Your task to perform on an android device: open a bookmark in the chrome app Image 0: 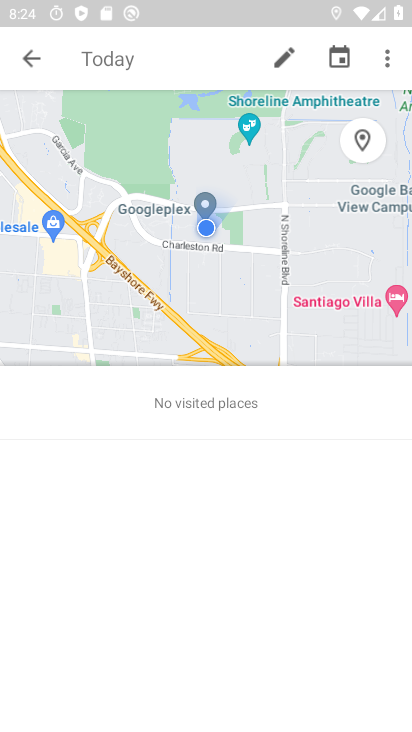
Step 0: press back button
Your task to perform on an android device: open a bookmark in the chrome app Image 1: 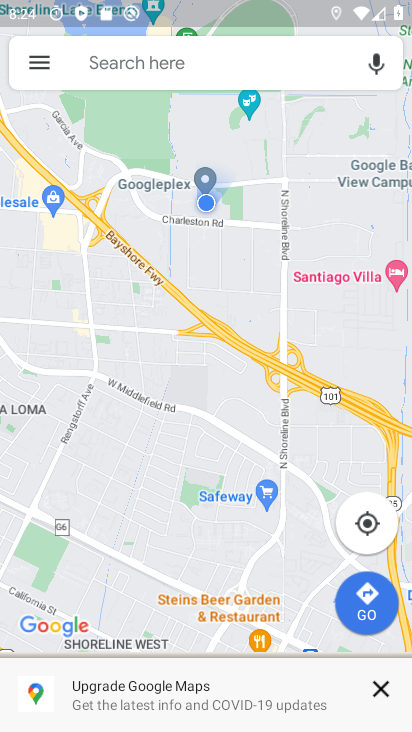
Step 1: press home button
Your task to perform on an android device: open a bookmark in the chrome app Image 2: 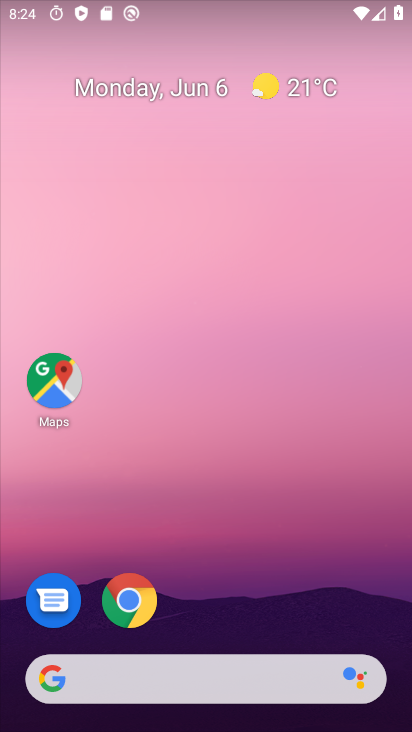
Step 2: drag from (238, 593) to (233, 33)
Your task to perform on an android device: open a bookmark in the chrome app Image 3: 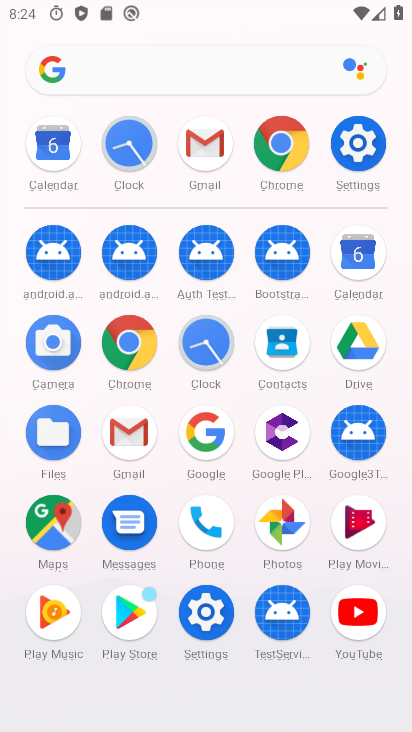
Step 3: click (283, 132)
Your task to perform on an android device: open a bookmark in the chrome app Image 4: 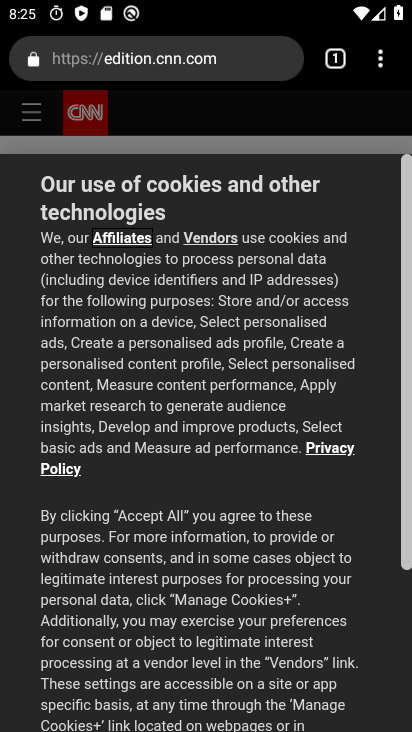
Step 4: drag from (377, 61) to (197, 225)
Your task to perform on an android device: open a bookmark in the chrome app Image 5: 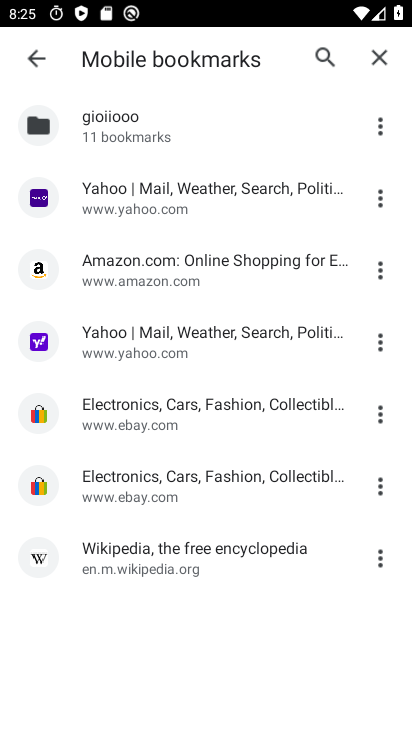
Step 5: click (170, 281)
Your task to perform on an android device: open a bookmark in the chrome app Image 6: 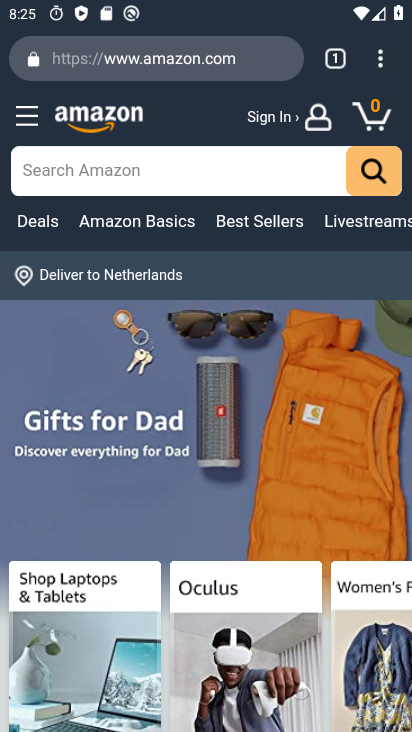
Step 6: drag from (381, 60) to (209, 626)
Your task to perform on an android device: open a bookmark in the chrome app Image 7: 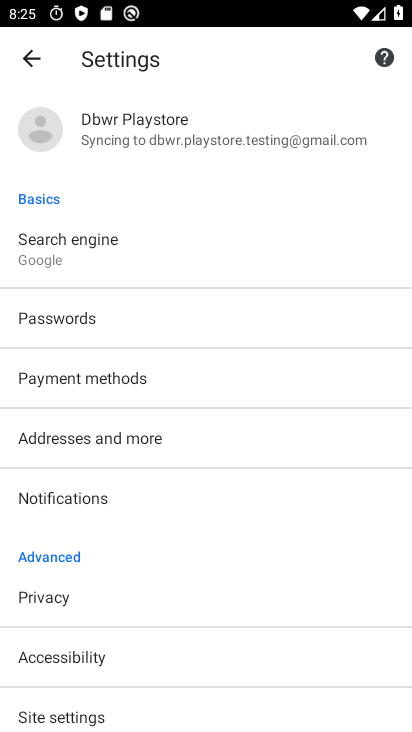
Step 7: click (31, 54)
Your task to perform on an android device: open a bookmark in the chrome app Image 8: 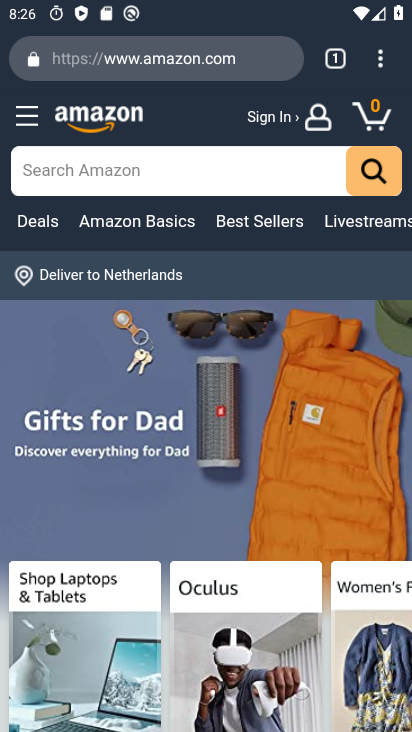
Step 8: drag from (384, 64) to (198, 221)
Your task to perform on an android device: open a bookmark in the chrome app Image 9: 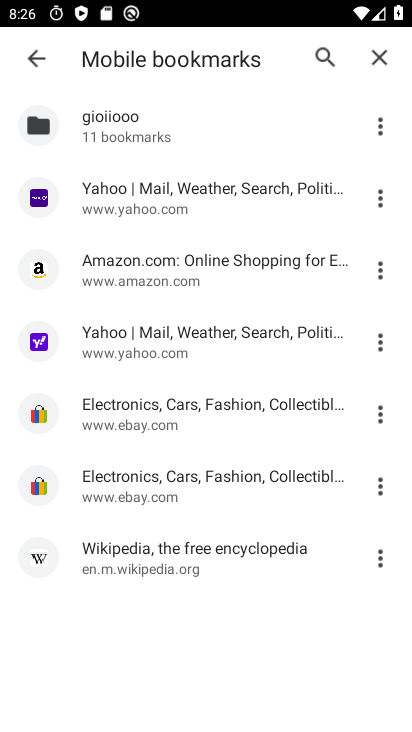
Step 9: click (136, 481)
Your task to perform on an android device: open a bookmark in the chrome app Image 10: 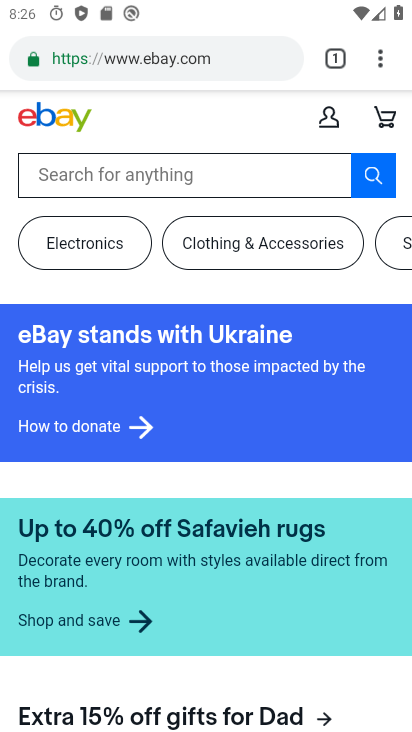
Step 10: task complete